Your task to perform on an android device: check the backup settings in the google photos Image 0: 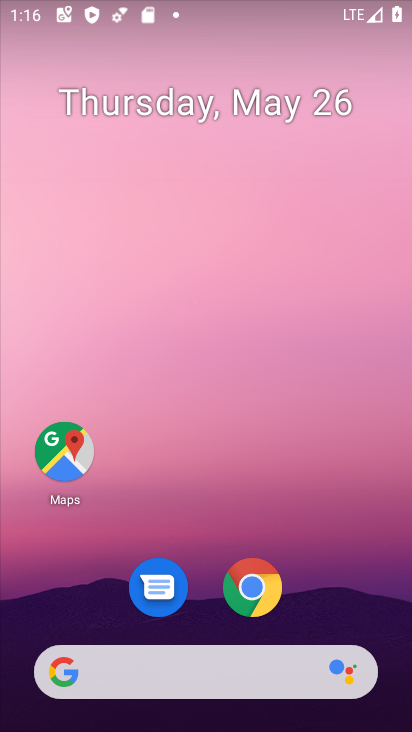
Step 0: drag from (374, 614) to (341, 226)
Your task to perform on an android device: check the backup settings in the google photos Image 1: 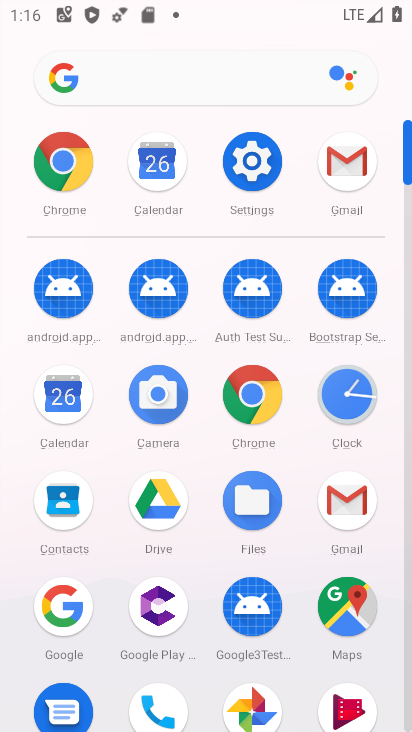
Step 1: drag from (287, 554) to (296, 385)
Your task to perform on an android device: check the backup settings in the google photos Image 2: 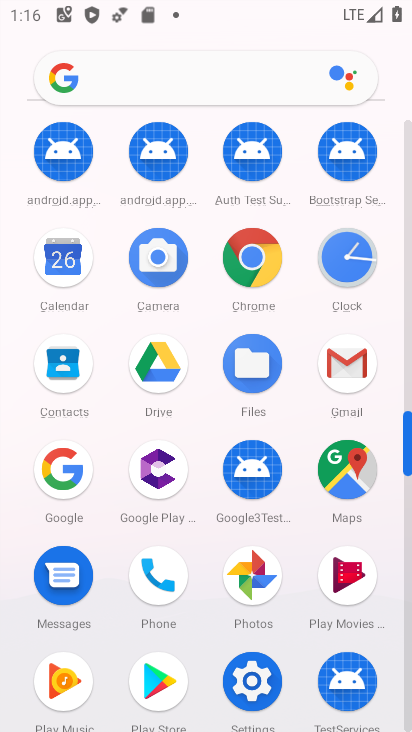
Step 2: click (248, 585)
Your task to perform on an android device: check the backup settings in the google photos Image 3: 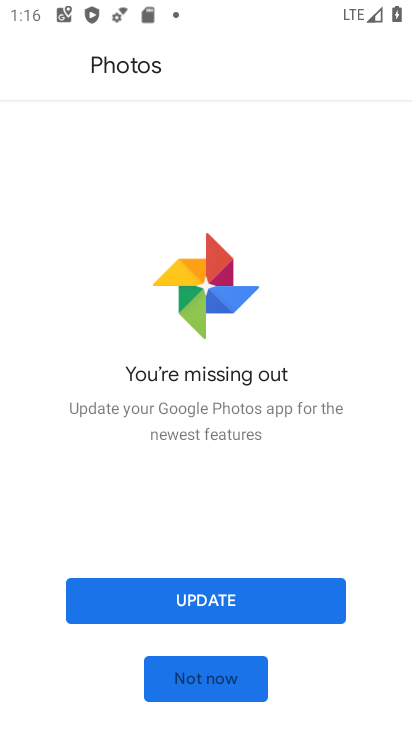
Step 3: click (268, 607)
Your task to perform on an android device: check the backup settings in the google photos Image 4: 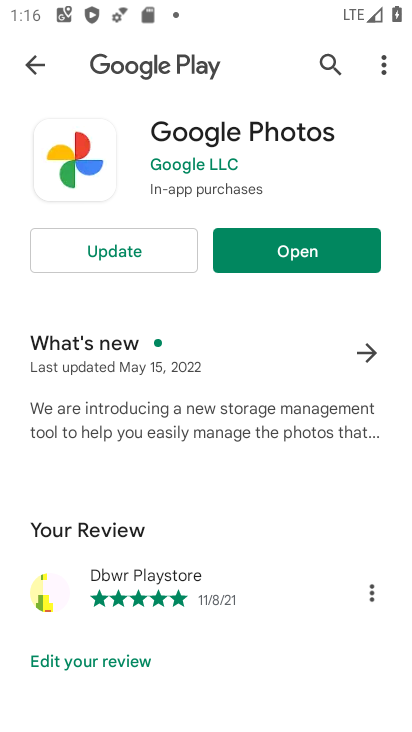
Step 4: click (117, 244)
Your task to perform on an android device: check the backup settings in the google photos Image 5: 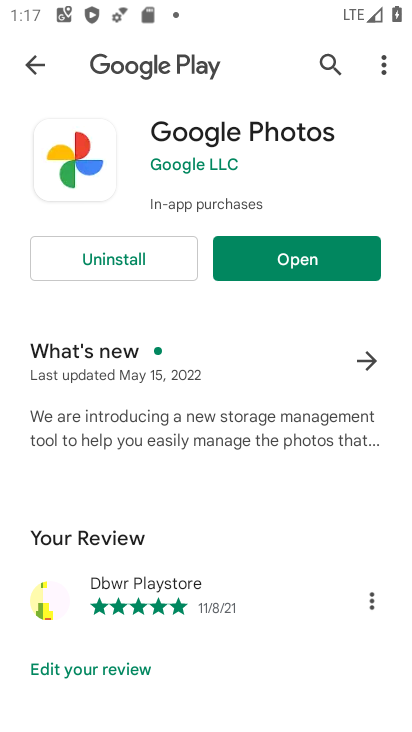
Step 5: click (289, 264)
Your task to perform on an android device: check the backup settings in the google photos Image 6: 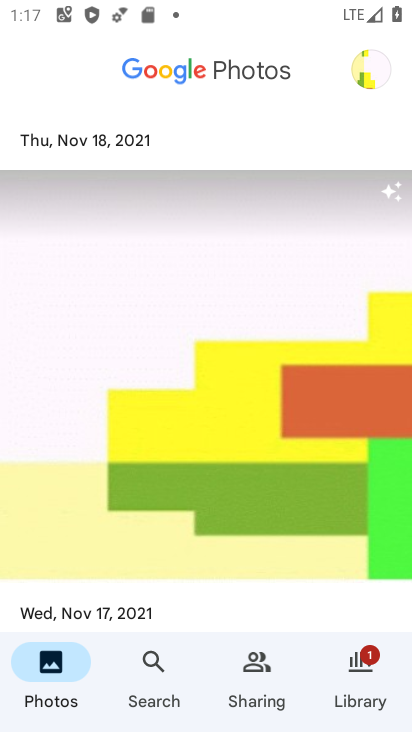
Step 6: task complete